Your task to perform on an android device: open chrome and create a bookmark for the current page Image 0: 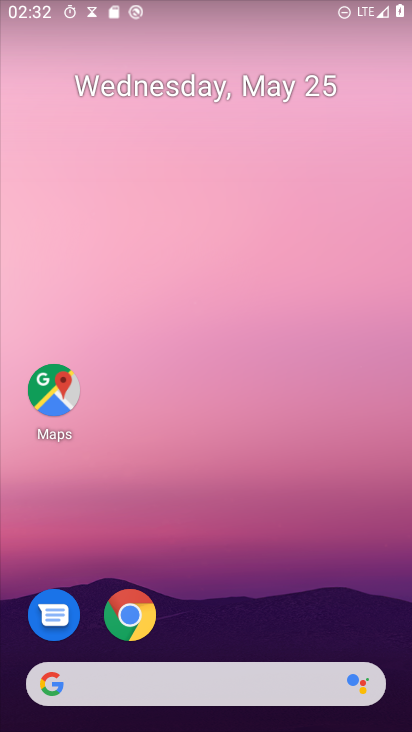
Step 0: press home button
Your task to perform on an android device: open chrome and create a bookmark for the current page Image 1: 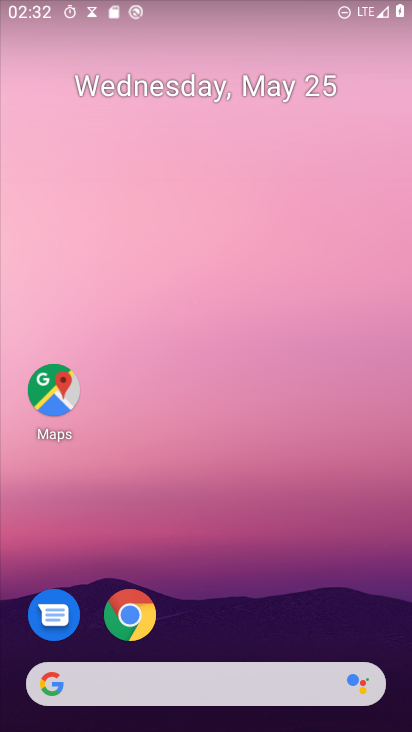
Step 1: drag from (260, 600) to (235, 164)
Your task to perform on an android device: open chrome and create a bookmark for the current page Image 2: 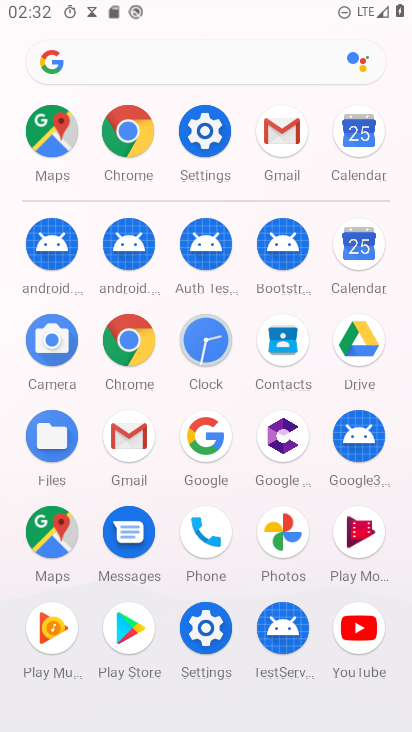
Step 2: click (118, 130)
Your task to perform on an android device: open chrome and create a bookmark for the current page Image 3: 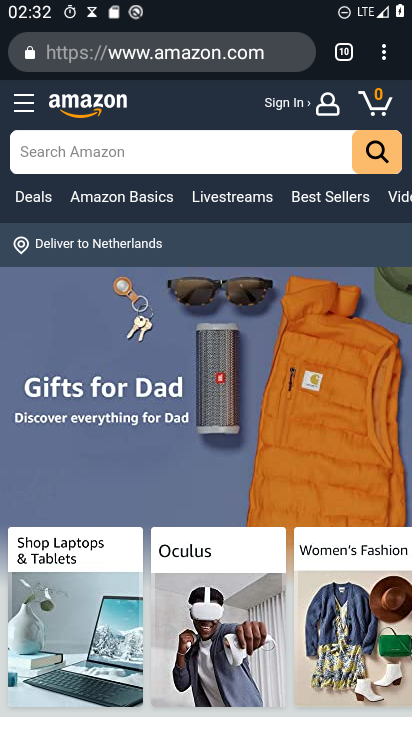
Step 3: click (384, 63)
Your task to perform on an android device: open chrome and create a bookmark for the current page Image 4: 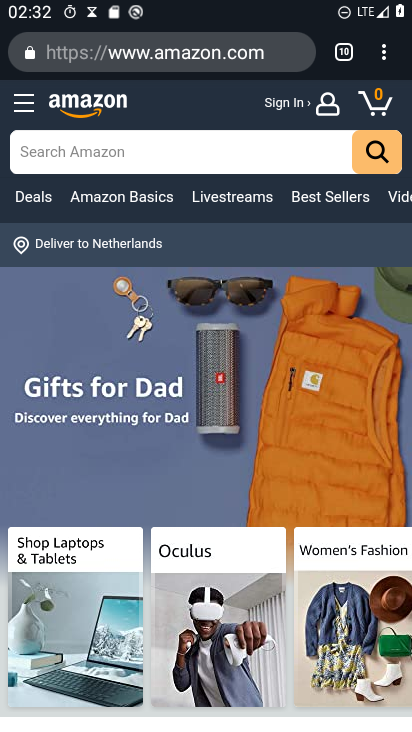
Step 4: click (386, 56)
Your task to perform on an android device: open chrome and create a bookmark for the current page Image 5: 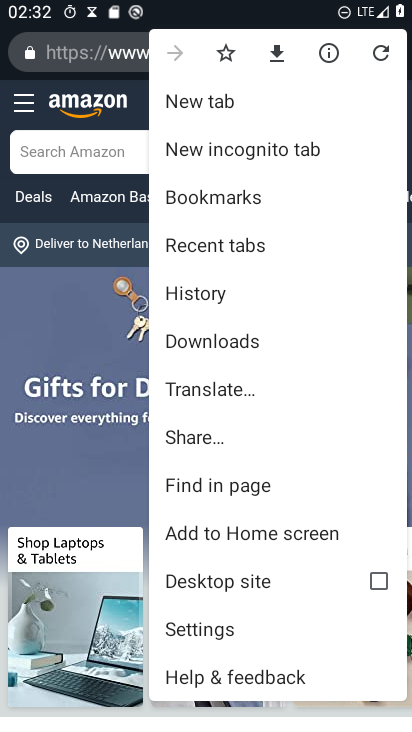
Step 5: click (239, 189)
Your task to perform on an android device: open chrome and create a bookmark for the current page Image 6: 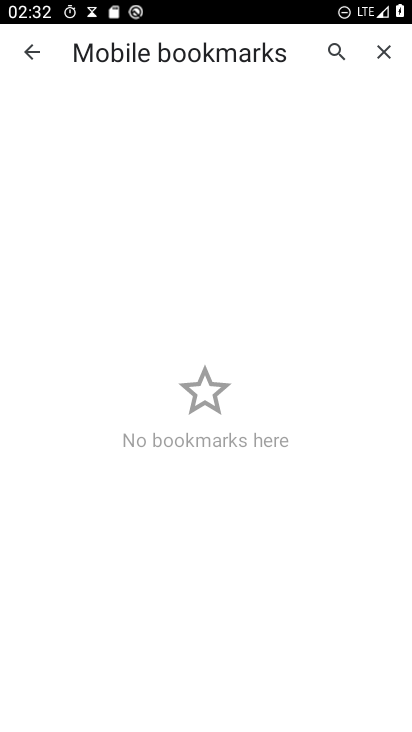
Step 6: task complete